Your task to perform on an android device: check the backup settings in the google photos Image 0: 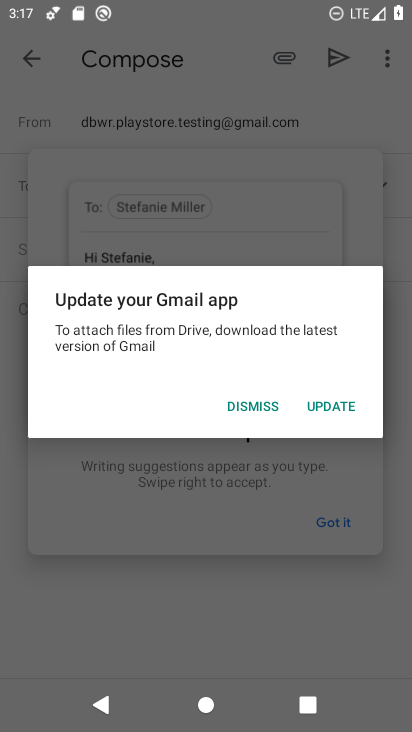
Step 0: press back button
Your task to perform on an android device: check the backup settings in the google photos Image 1: 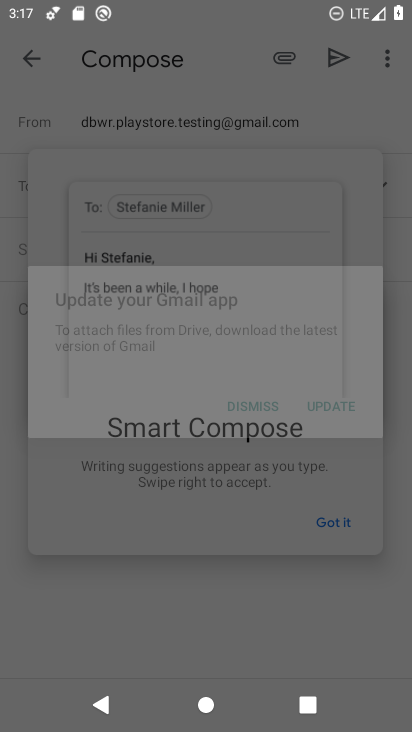
Step 1: press home button
Your task to perform on an android device: check the backup settings in the google photos Image 2: 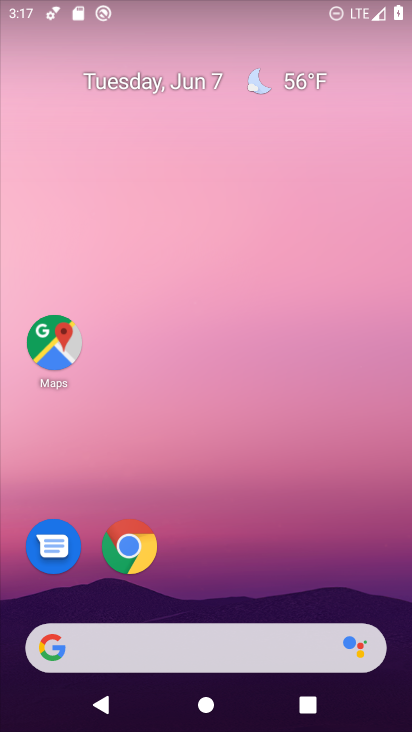
Step 2: drag from (225, 536) to (232, 18)
Your task to perform on an android device: check the backup settings in the google photos Image 3: 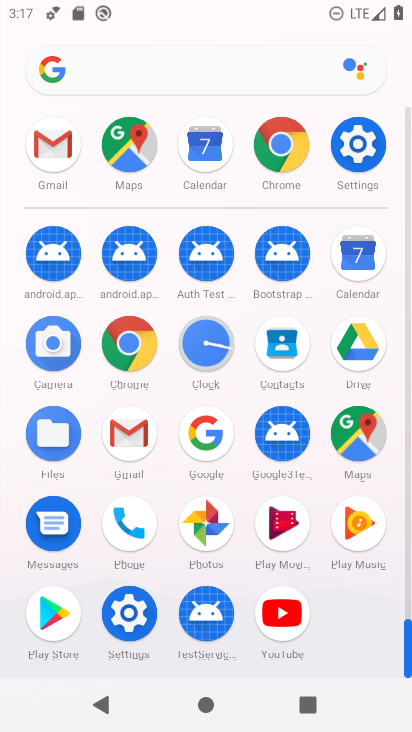
Step 3: drag from (3, 570) to (19, 205)
Your task to perform on an android device: check the backup settings in the google photos Image 4: 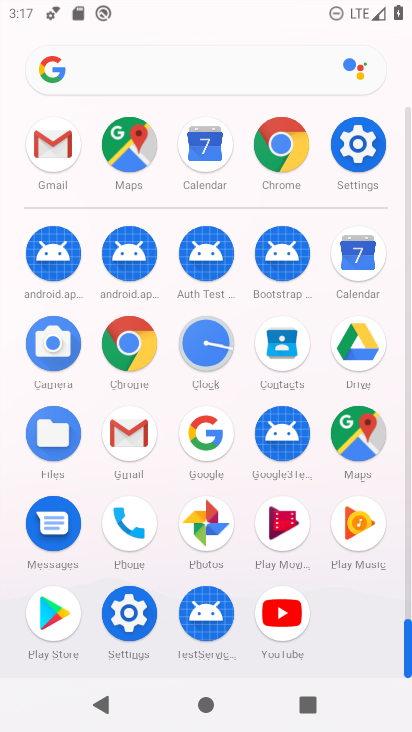
Step 4: click (198, 516)
Your task to perform on an android device: check the backup settings in the google photos Image 5: 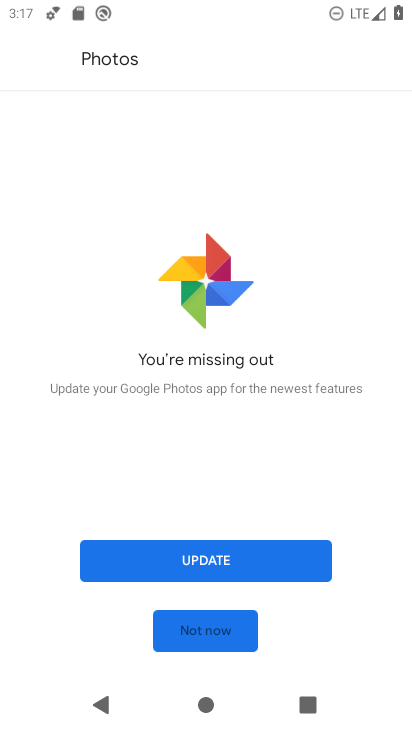
Step 5: click (212, 559)
Your task to perform on an android device: check the backup settings in the google photos Image 6: 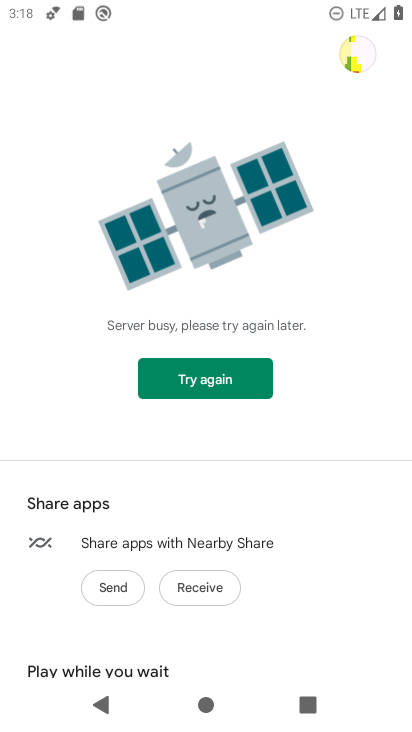
Step 6: click (242, 378)
Your task to perform on an android device: check the backup settings in the google photos Image 7: 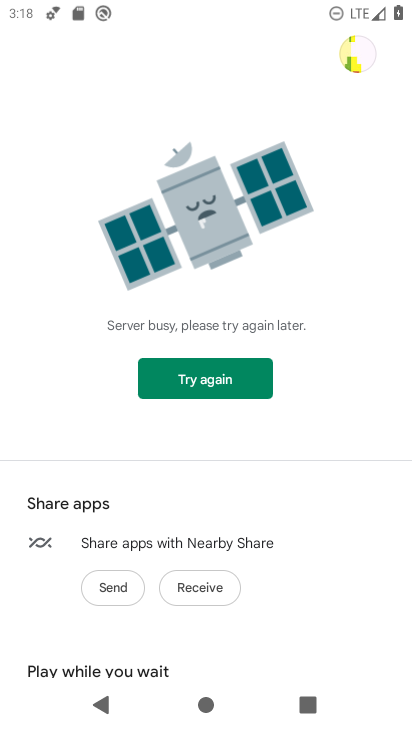
Step 7: task complete